Your task to perform on an android device: Go to Google maps Image 0: 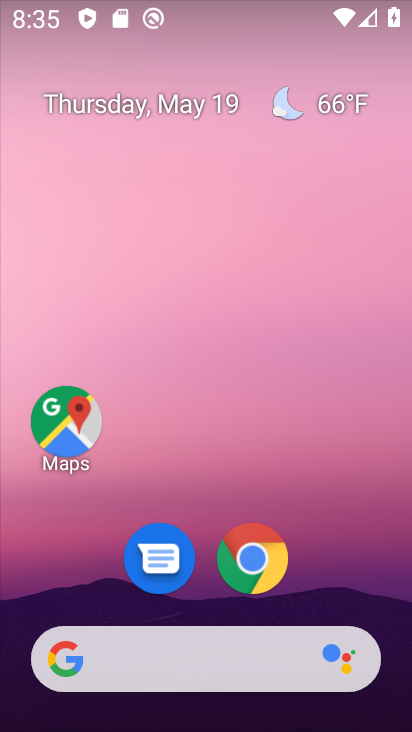
Step 0: click (77, 412)
Your task to perform on an android device: Go to Google maps Image 1: 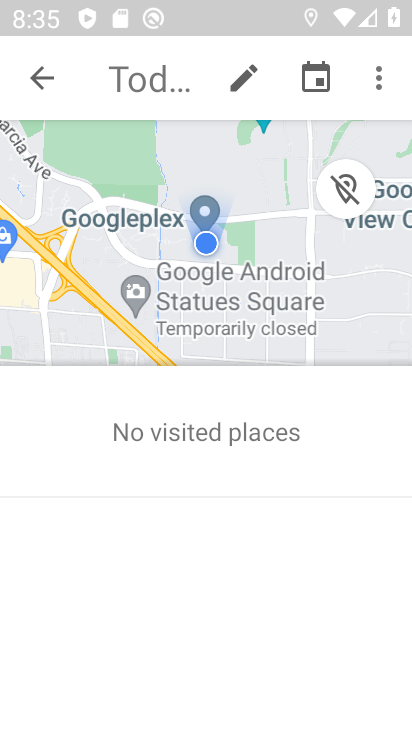
Step 1: task complete